Your task to perform on an android device: turn off notifications in google photos Image 0: 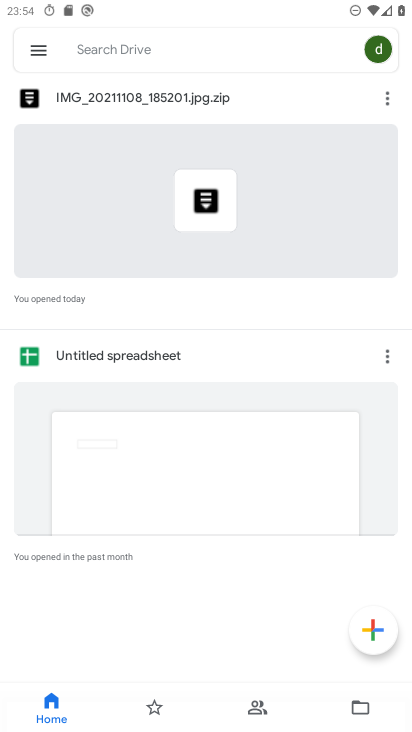
Step 0: press home button
Your task to perform on an android device: turn off notifications in google photos Image 1: 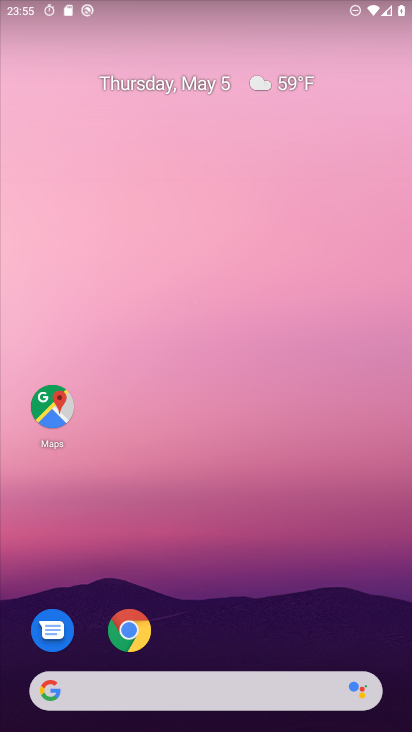
Step 1: drag from (298, 468) to (236, 19)
Your task to perform on an android device: turn off notifications in google photos Image 2: 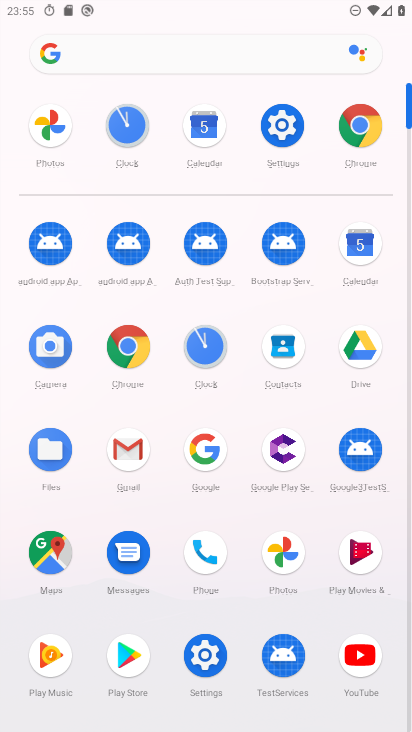
Step 2: click (48, 135)
Your task to perform on an android device: turn off notifications in google photos Image 3: 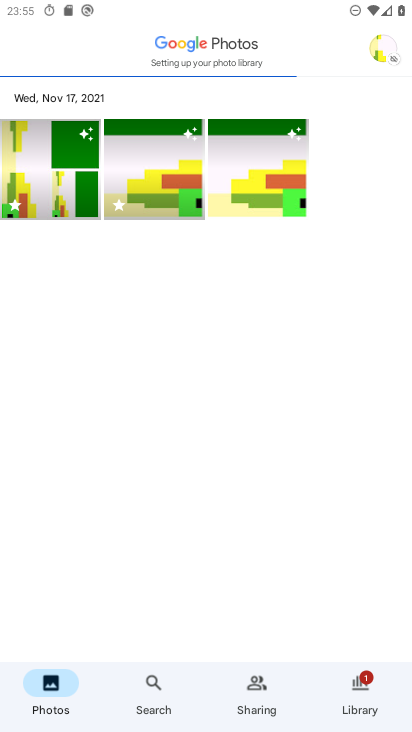
Step 3: click (384, 51)
Your task to perform on an android device: turn off notifications in google photos Image 4: 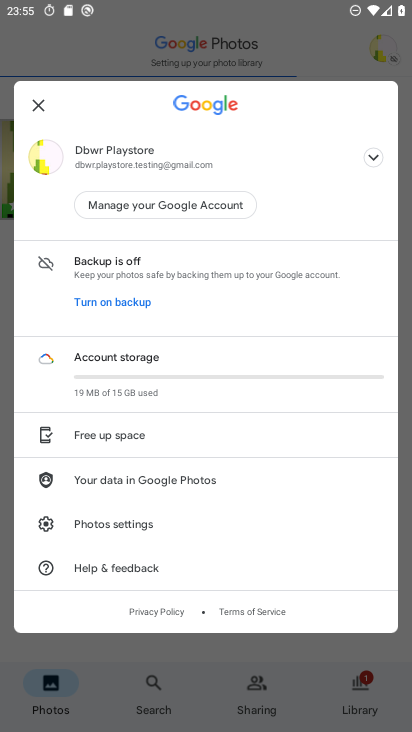
Step 4: click (112, 523)
Your task to perform on an android device: turn off notifications in google photos Image 5: 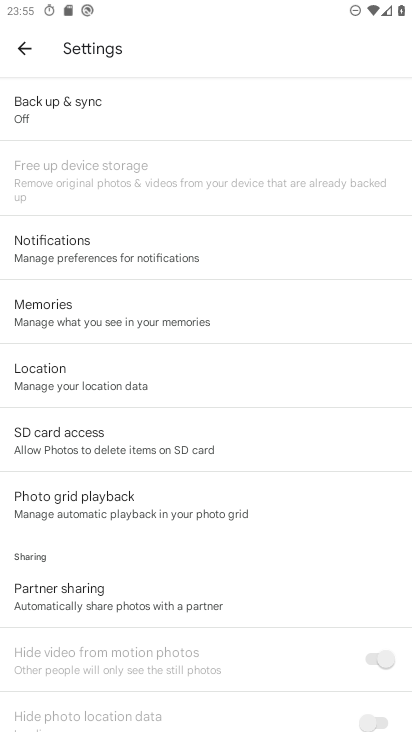
Step 5: click (98, 249)
Your task to perform on an android device: turn off notifications in google photos Image 6: 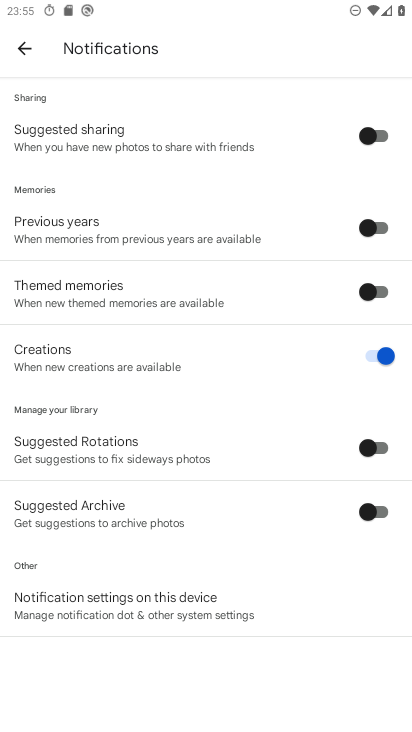
Step 6: click (119, 606)
Your task to perform on an android device: turn off notifications in google photos Image 7: 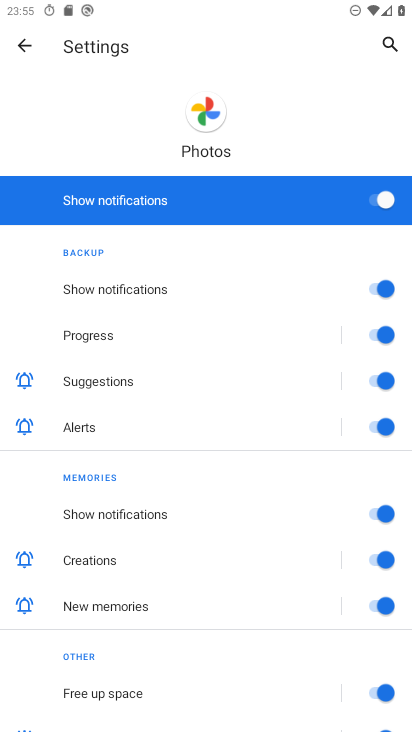
Step 7: click (386, 189)
Your task to perform on an android device: turn off notifications in google photos Image 8: 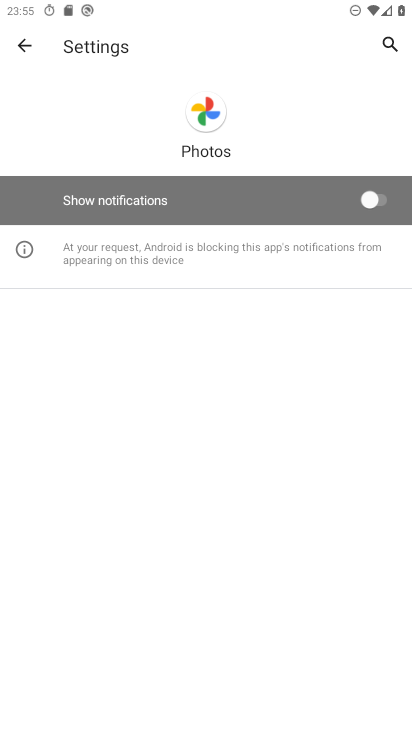
Step 8: task complete